Your task to perform on an android device: show emergency info Image 0: 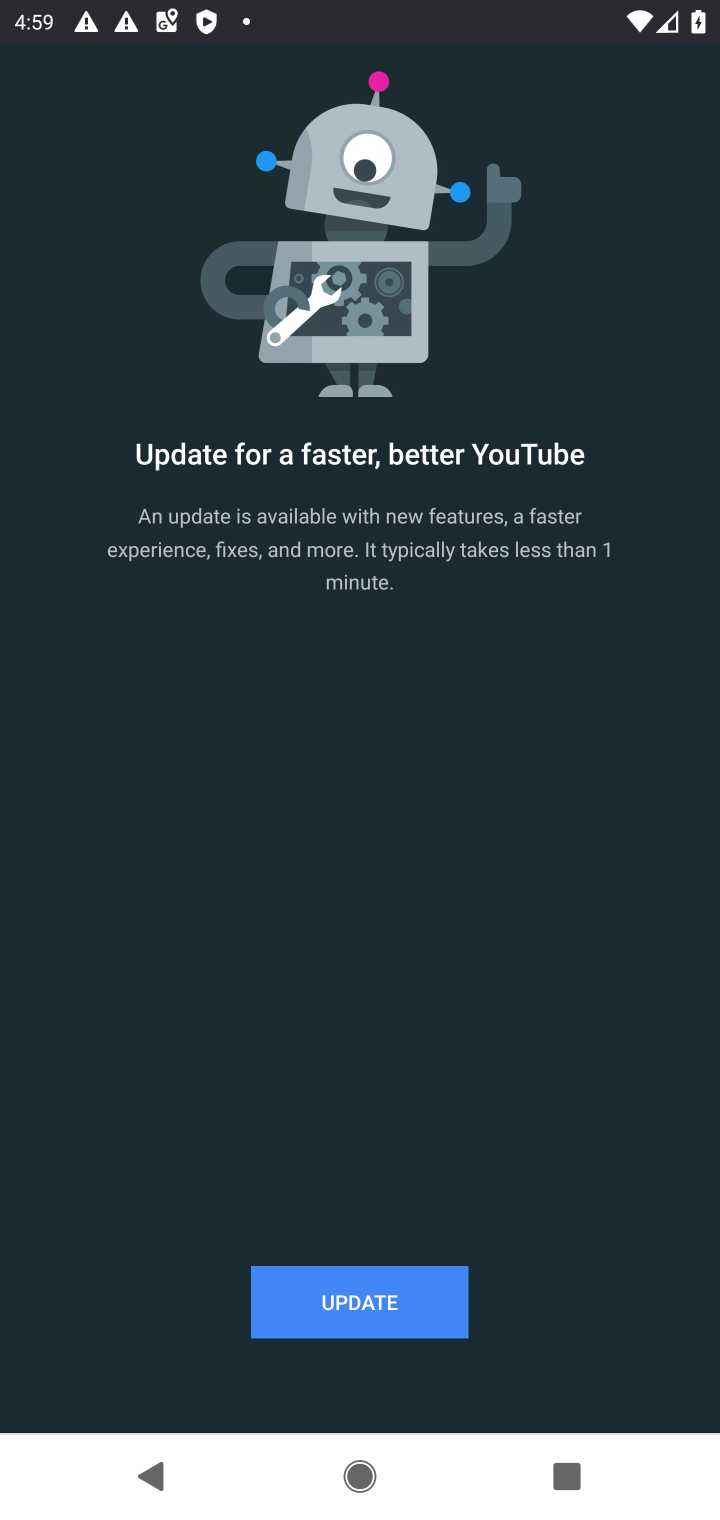
Step 0: press home button
Your task to perform on an android device: show emergency info Image 1: 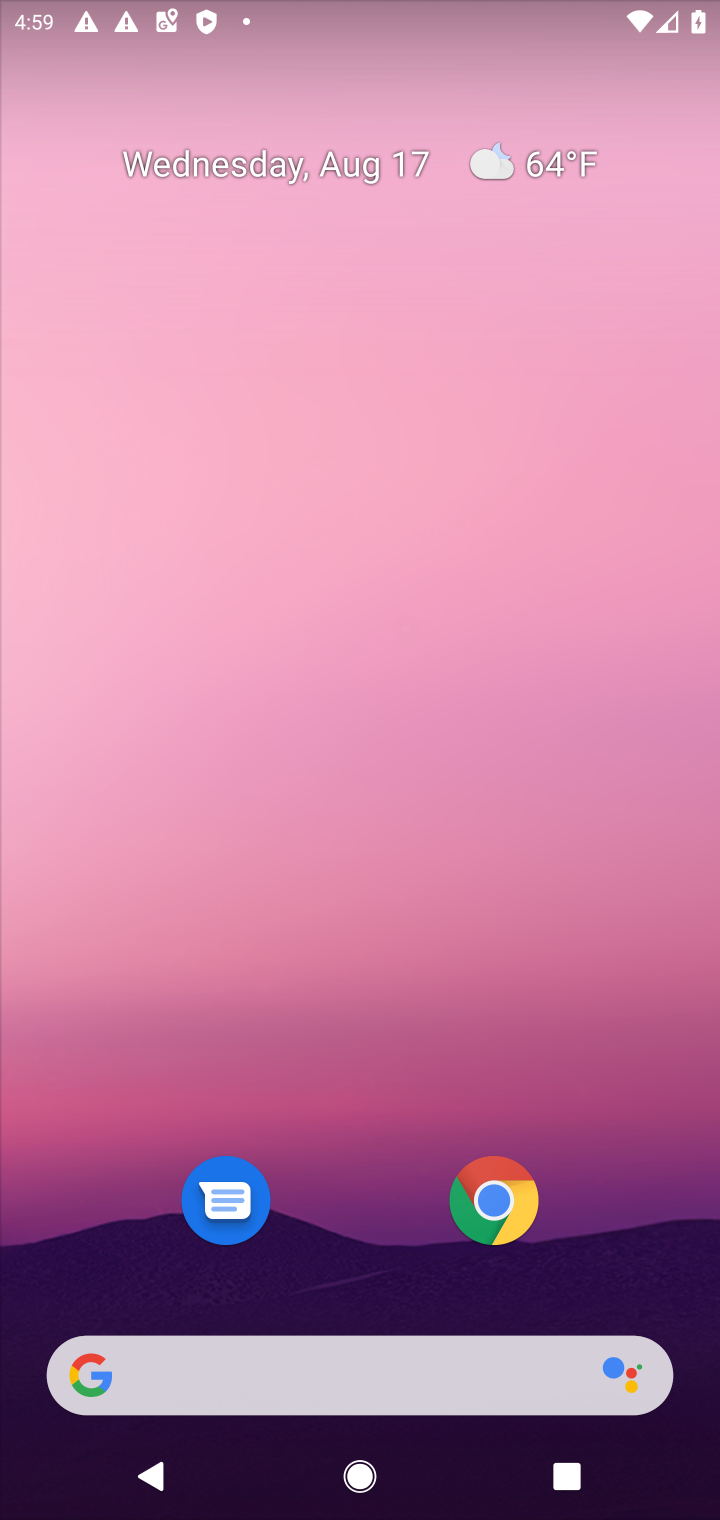
Step 1: drag from (372, 1253) to (375, 106)
Your task to perform on an android device: show emergency info Image 2: 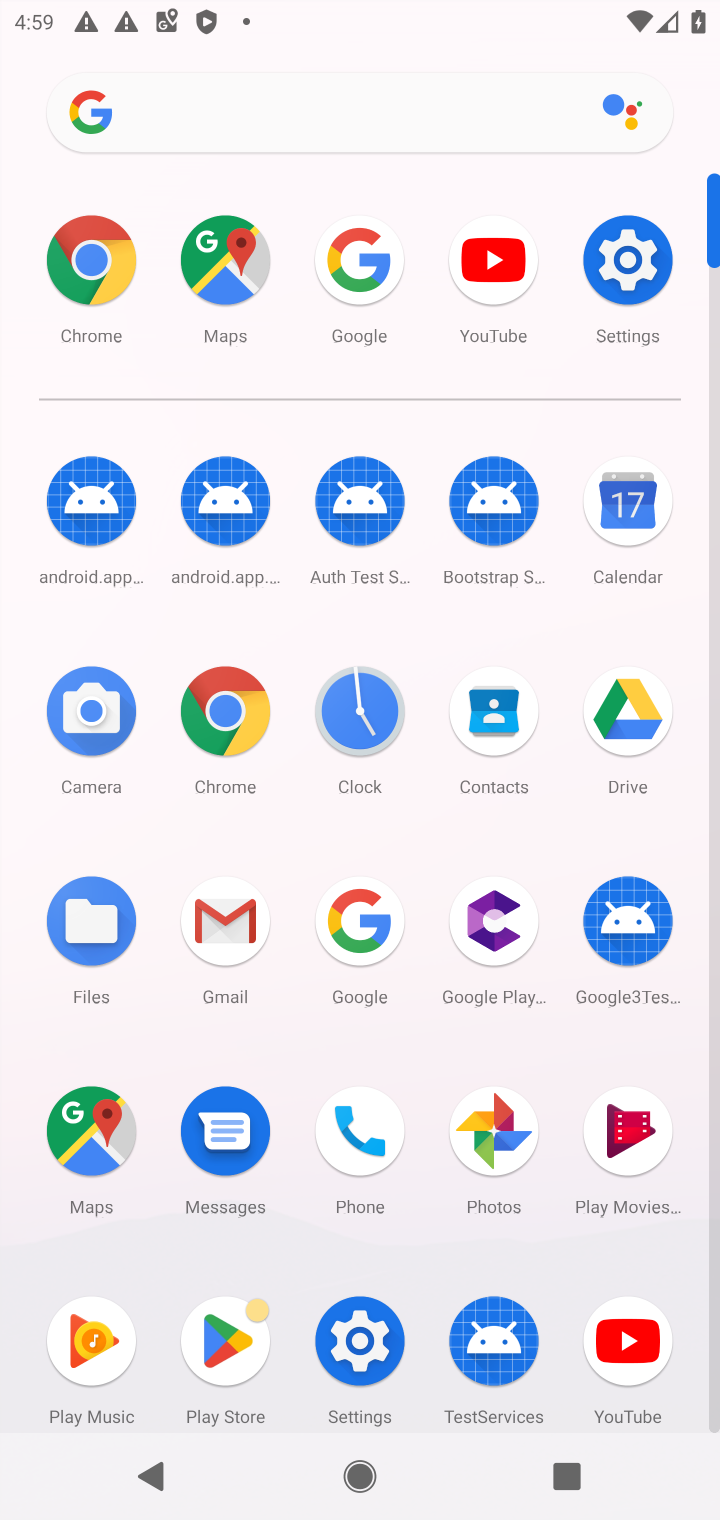
Step 2: click (630, 266)
Your task to perform on an android device: show emergency info Image 3: 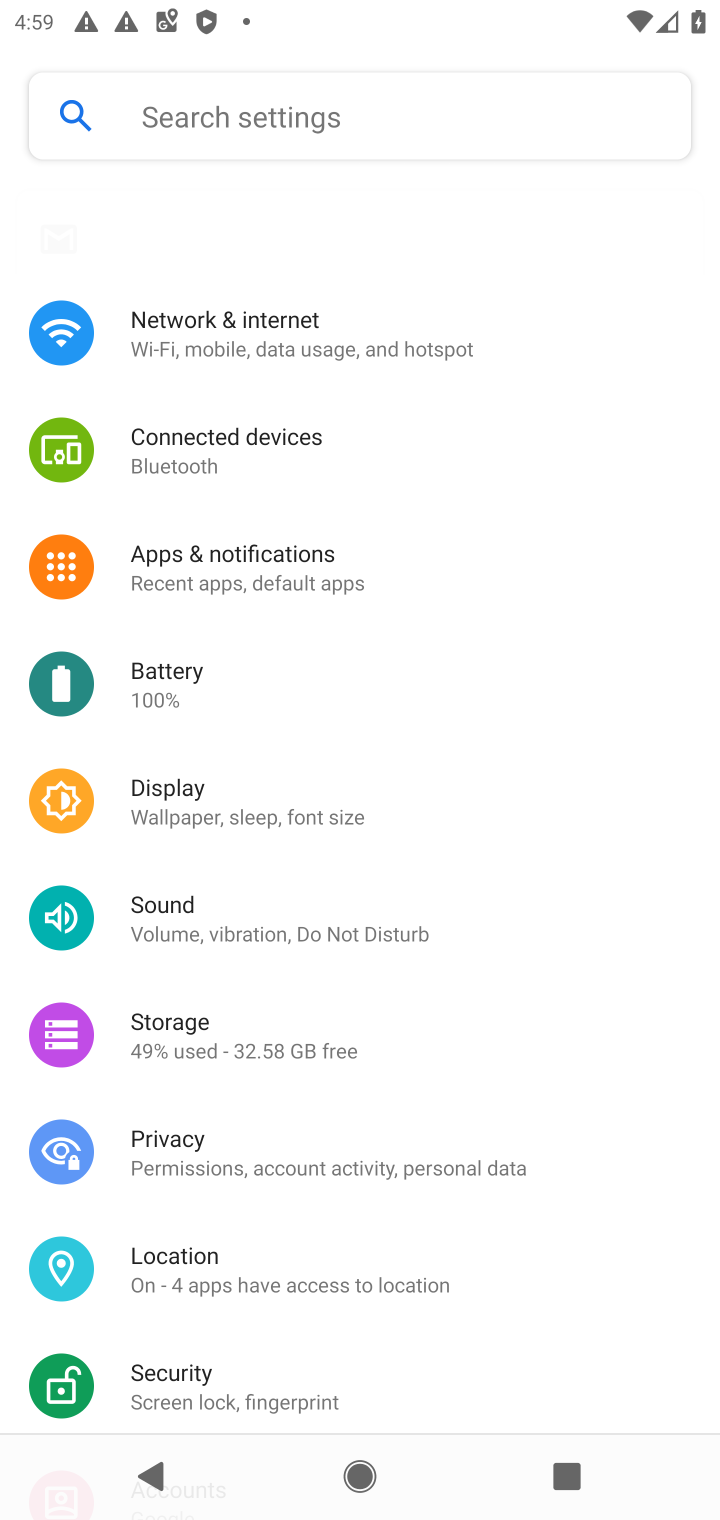
Step 3: drag from (250, 1335) to (308, 494)
Your task to perform on an android device: show emergency info Image 4: 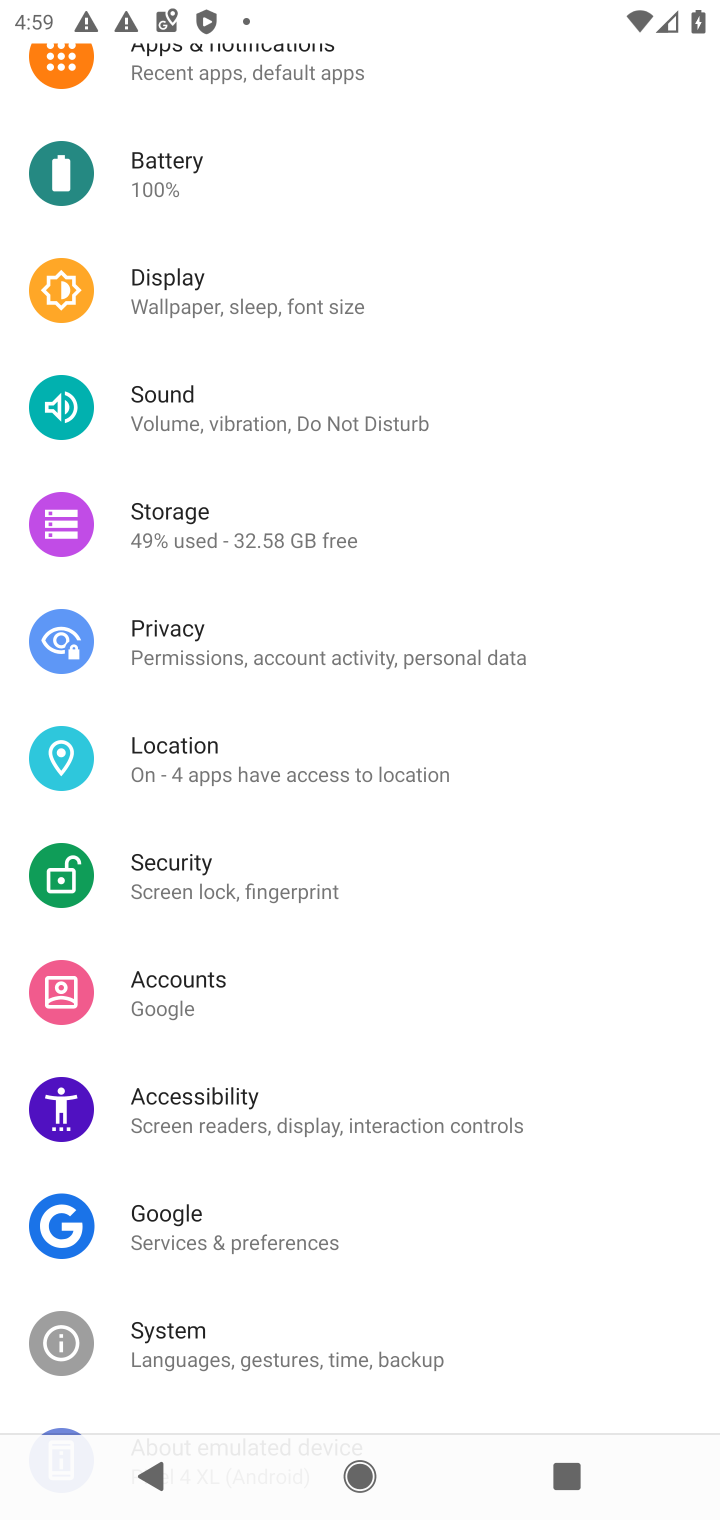
Step 4: drag from (199, 1200) to (197, 515)
Your task to perform on an android device: show emergency info Image 5: 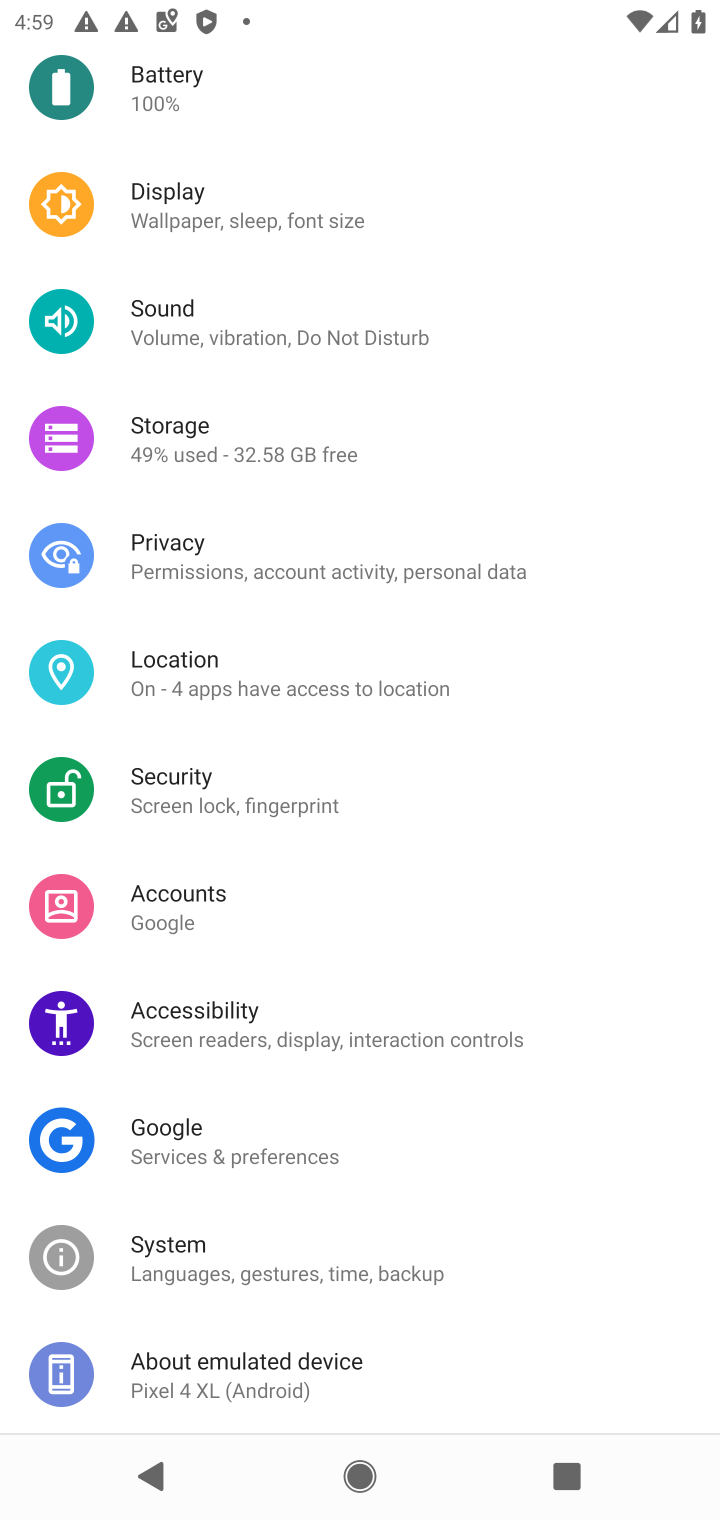
Step 5: click (198, 1360)
Your task to perform on an android device: show emergency info Image 6: 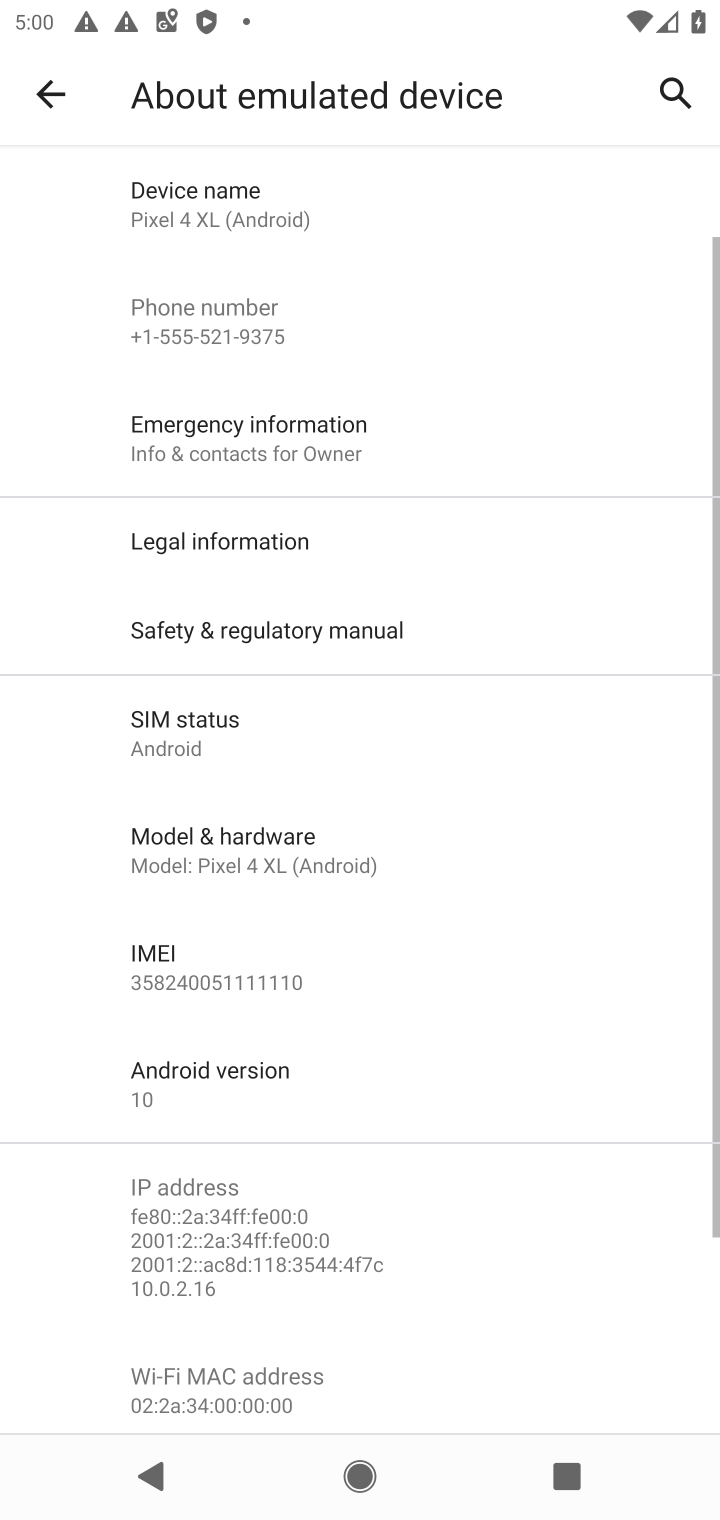
Step 6: click (225, 440)
Your task to perform on an android device: show emergency info Image 7: 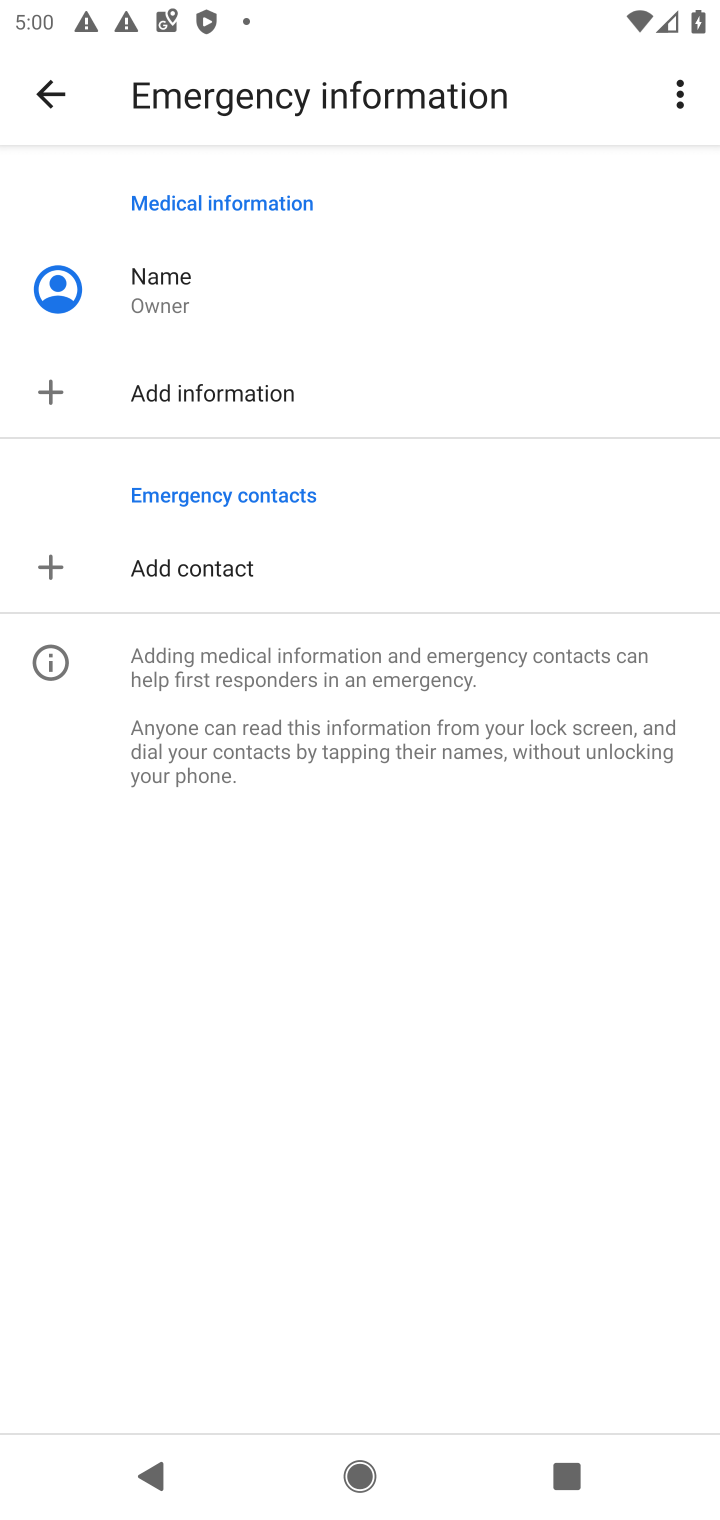
Step 7: task complete